Your task to perform on an android device: Go to location settings Image 0: 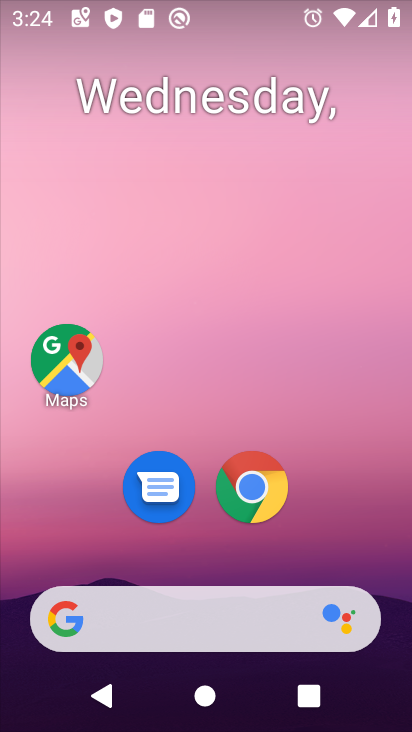
Step 0: drag from (369, 484) to (384, 116)
Your task to perform on an android device: Go to location settings Image 1: 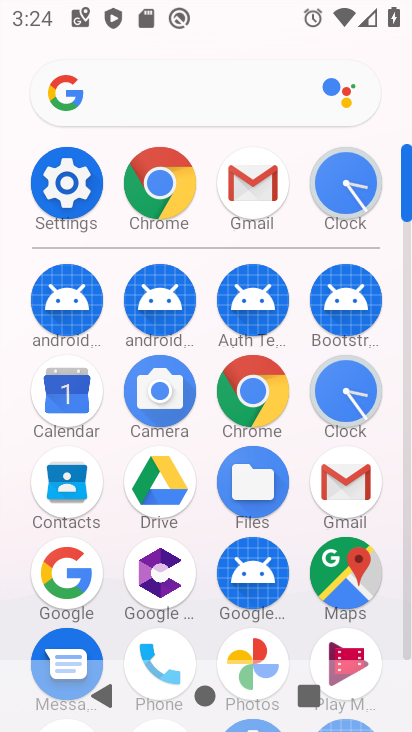
Step 1: click (79, 194)
Your task to perform on an android device: Go to location settings Image 2: 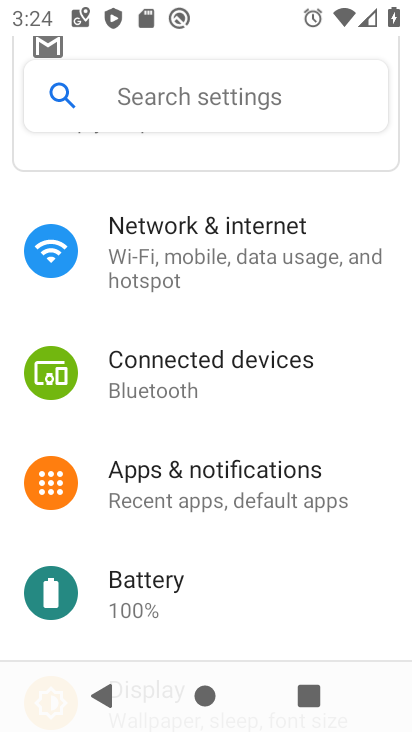
Step 2: drag from (383, 580) to (369, 432)
Your task to perform on an android device: Go to location settings Image 3: 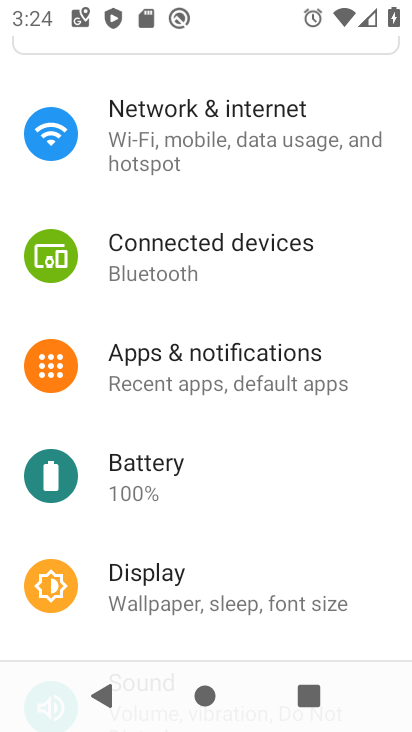
Step 3: drag from (360, 588) to (359, 435)
Your task to perform on an android device: Go to location settings Image 4: 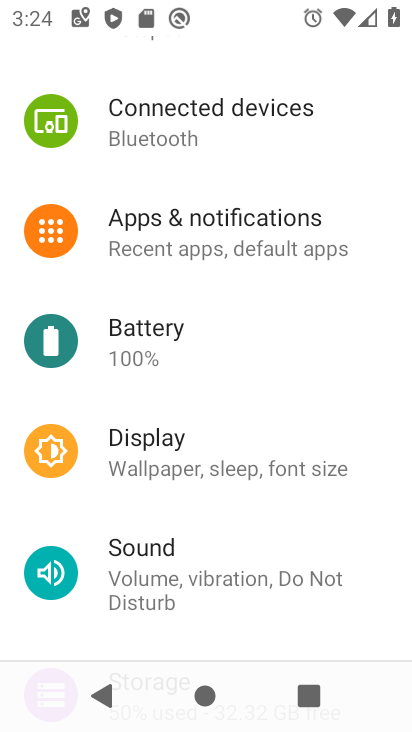
Step 4: drag from (318, 525) to (321, 379)
Your task to perform on an android device: Go to location settings Image 5: 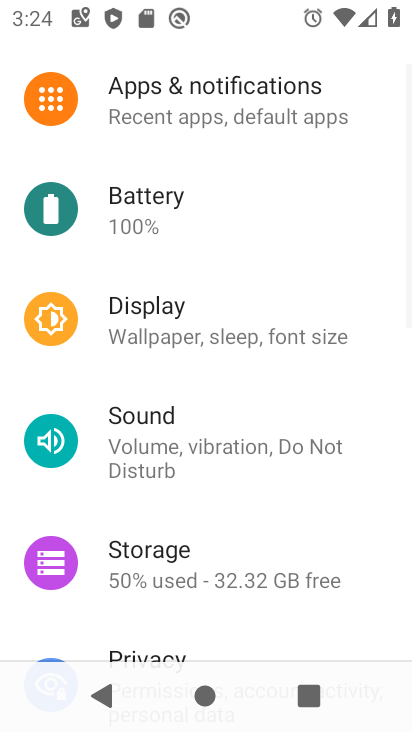
Step 5: drag from (355, 528) to (361, 406)
Your task to perform on an android device: Go to location settings Image 6: 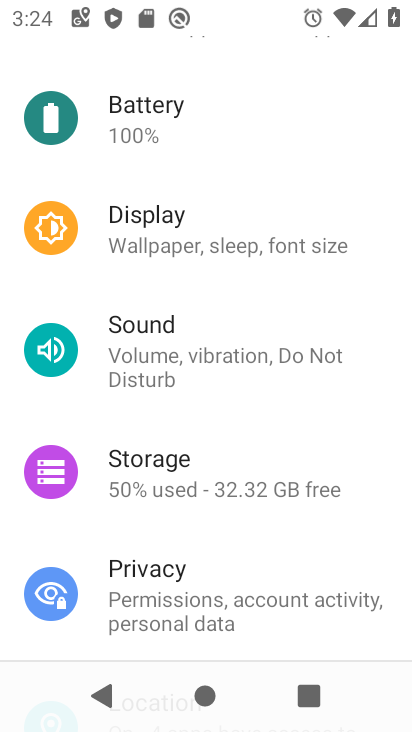
Step 6: drag from (345, 532) to (365, 388)
Your task to perform on an android device: Go to location settings Image 7: 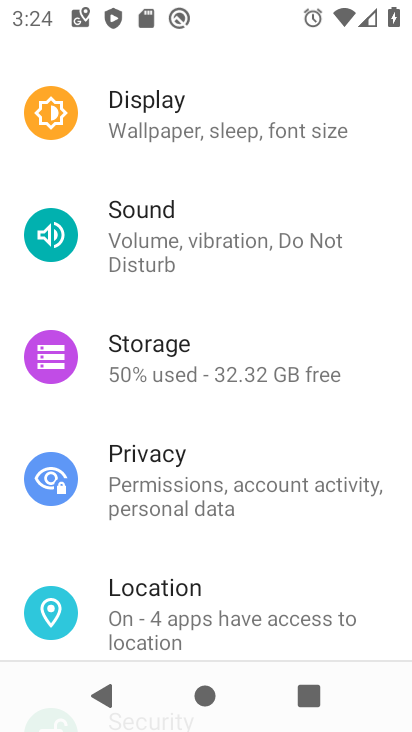
Step 7: drag from (364, 557) to (362, 426)
Your task to perform on an android device: Go to location settings Image 8: 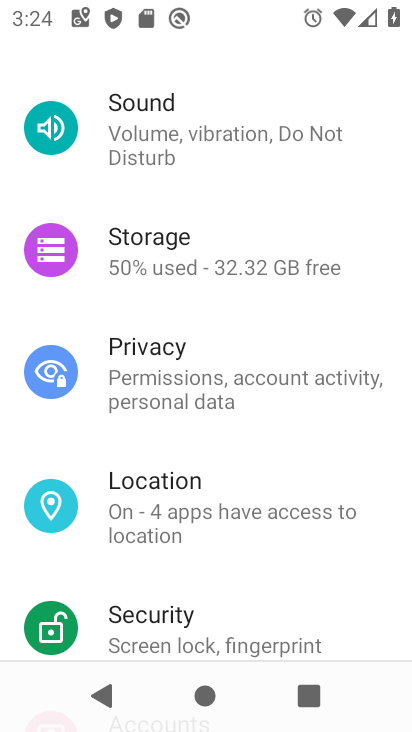
Step 8: click (261, 515)
Your task to perform on an android device: Go to location settings Image 9: 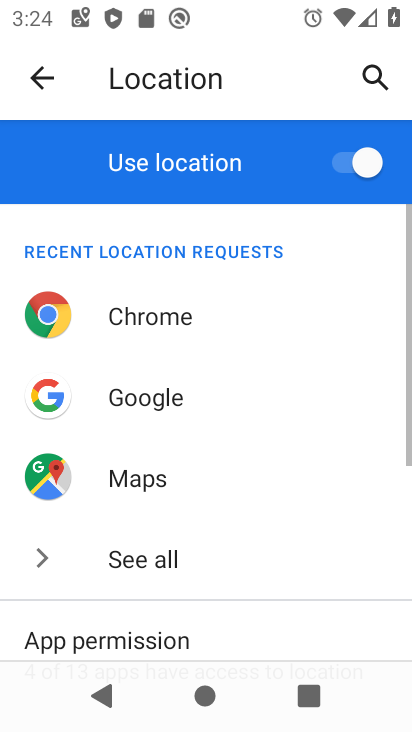
Step 9: task complete